Your task to perform on an android device: Search for Mexican restaurants on Maps Image 0: 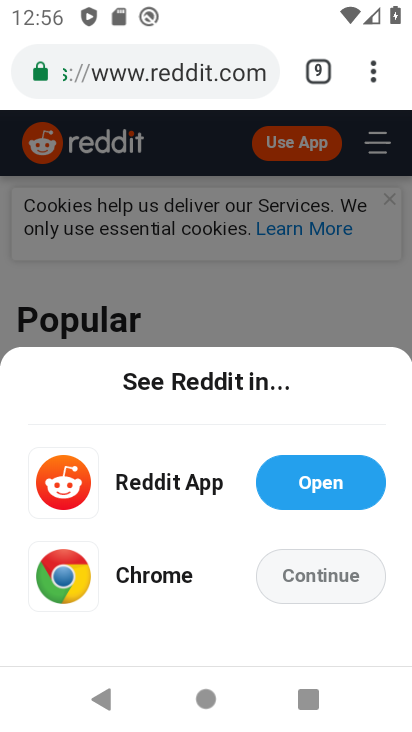
Step 0: press home button
Your task to perform on an android device: Search for Mexican restaurants on Maps Image 1: 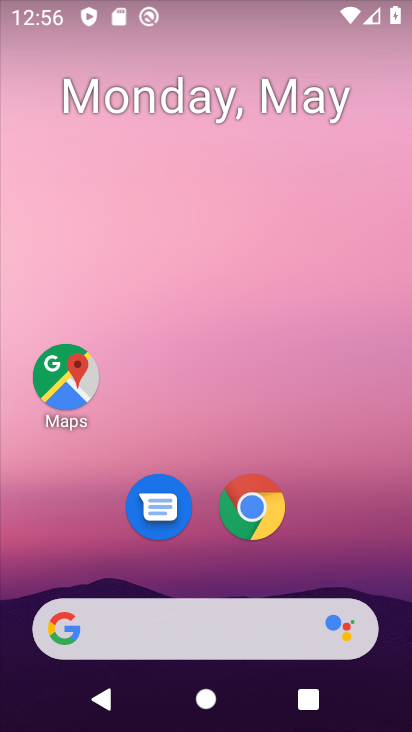
Step 1: drag from (235, 722) to (239, 11)
Your task to perform on an android device: Search for Mexican restaurants on Maps Image 2: 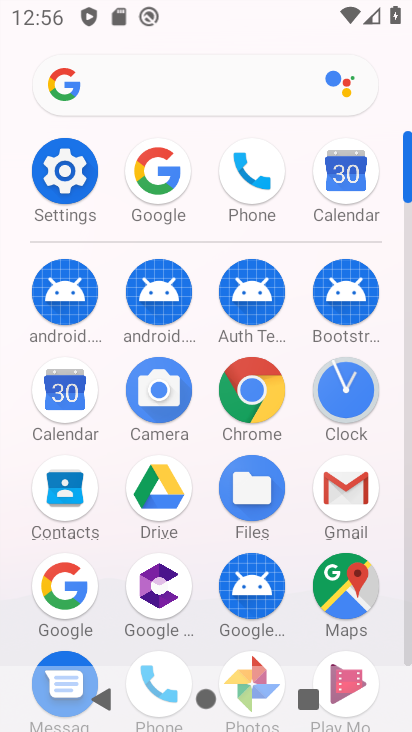
Step 2: click (355, 589)
Your task to perform on an android device: Search for Mexican restaurants on Maps Image 3: 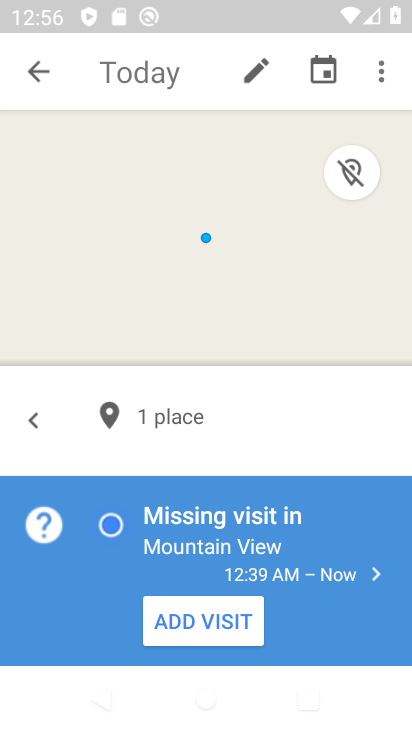
Step 3: click (38, 67)
Your task to perform on an android device: Search for Mexican restaurants on Maps Image 4: 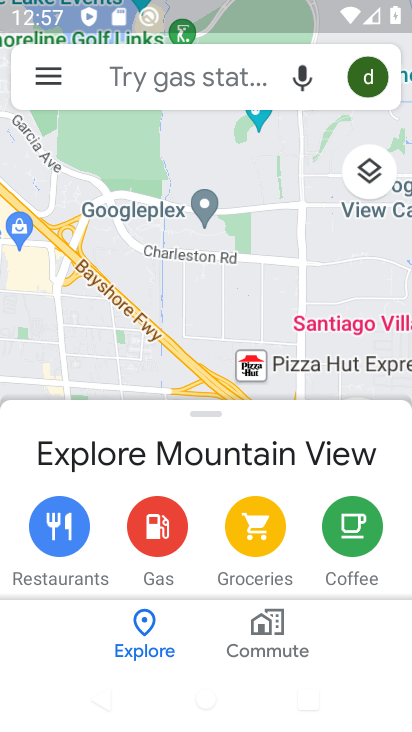
Step 4: click (219, 79)
Your task to perform on an android device: Search for Mexican restaurants on Maps Image 5: 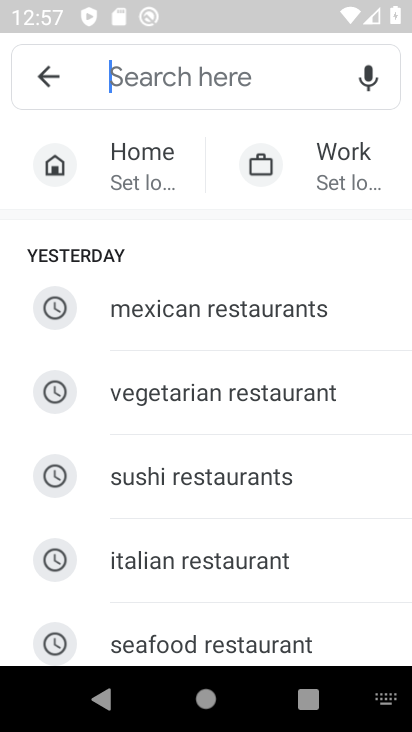
Step 5: type "Mexican restaurants"
Your task to perform on an android device: Search for Mexican restaurants on Maps Image 6: 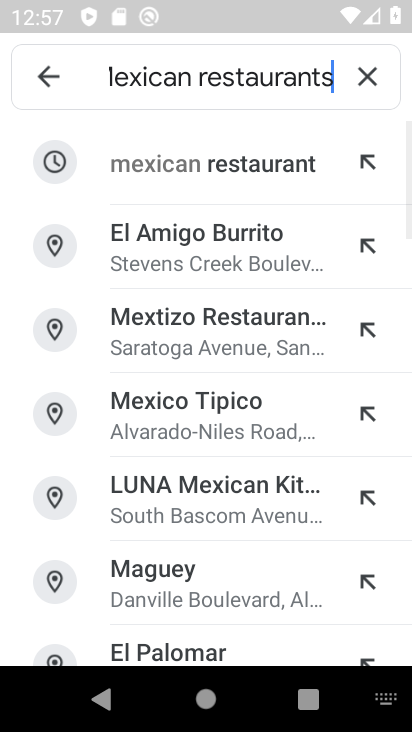
Step 6: click (263, 162)
Your task to perform on an android device: Search for Mexican restaurants on Maps Image 7: 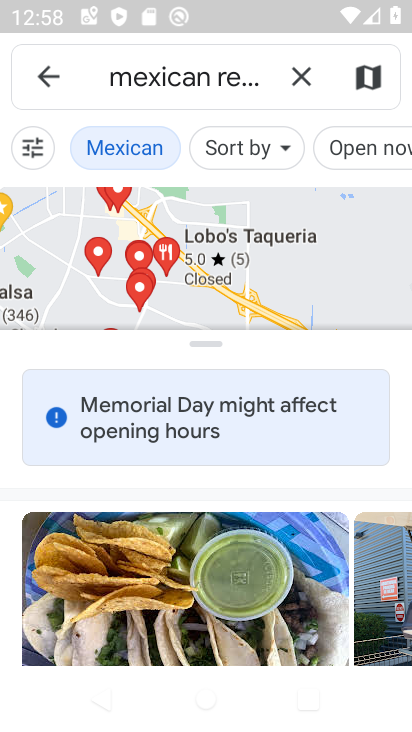
Step 7: task complete